Your task to perform on an android device: open a new tab in the chrome app Image 0: 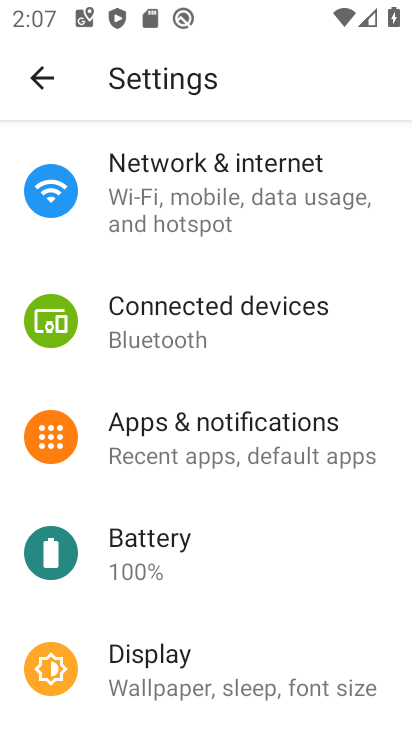
Step 0: press home button
Your task to perform on an android device: open a new tab in the chrome app Image 1: 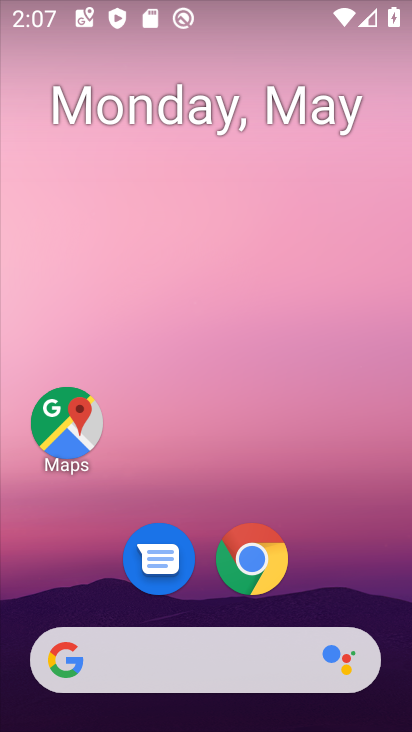
Step 1: click (225, 556)
Your task to perform on an android device: open a new tab in the chrome app Image 2: 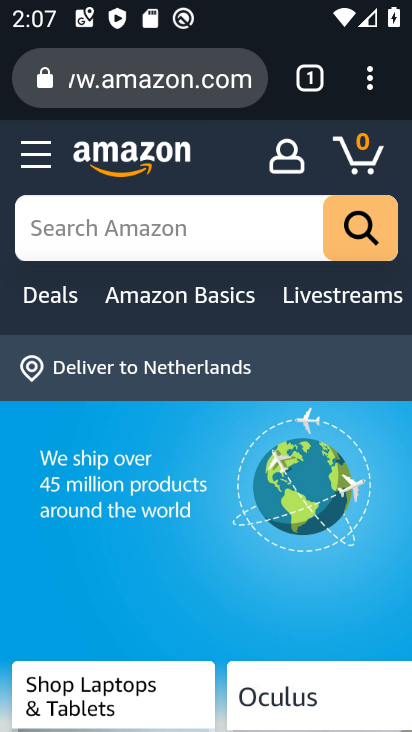
Step 2: click (369, 73)
Your task to perform on an android device: open a new tab in the chrome app Image 3: 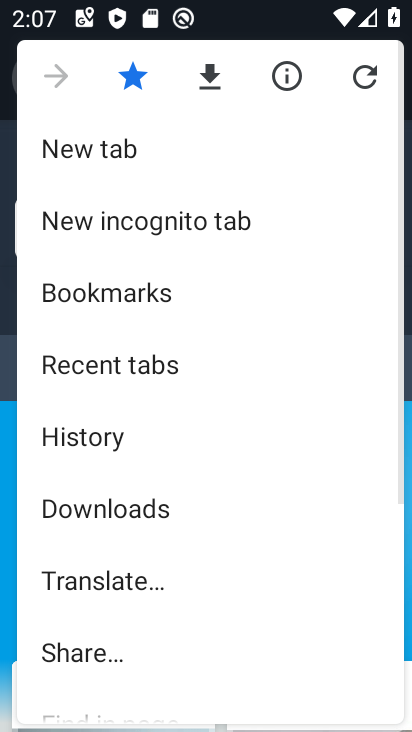
Step 3: click (364, 76)
Your task to perform on an android device: open a new tab in the chrome app Image 4: 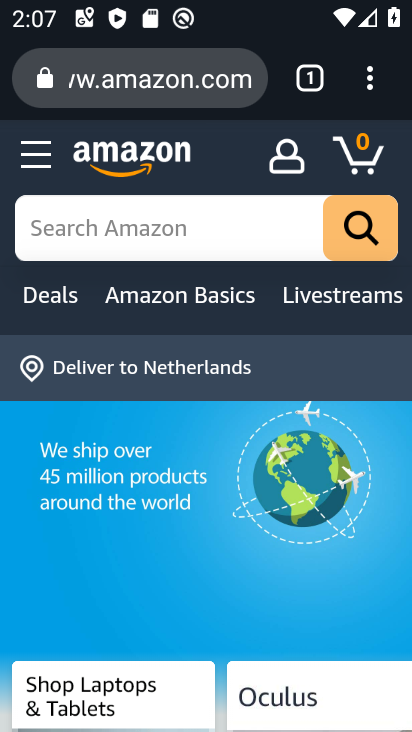
Step 4: click (381, 93)
Your task to perform on an android device: open a new tab in the chrome app Image 5: 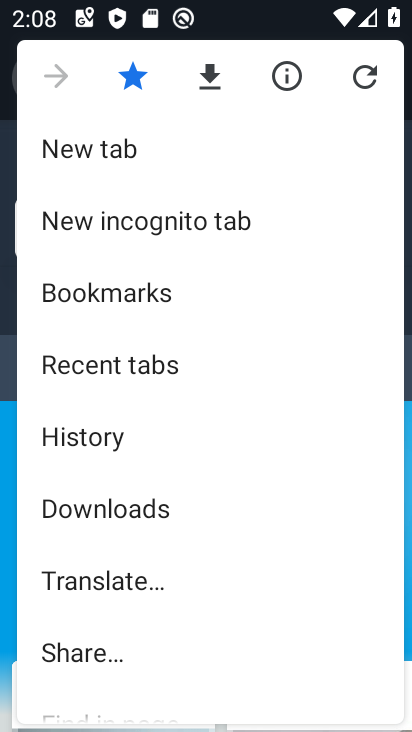
Step 5: click (102, 157)
Your task to perform on an android device: open a new tab in the chrome app Image 6: 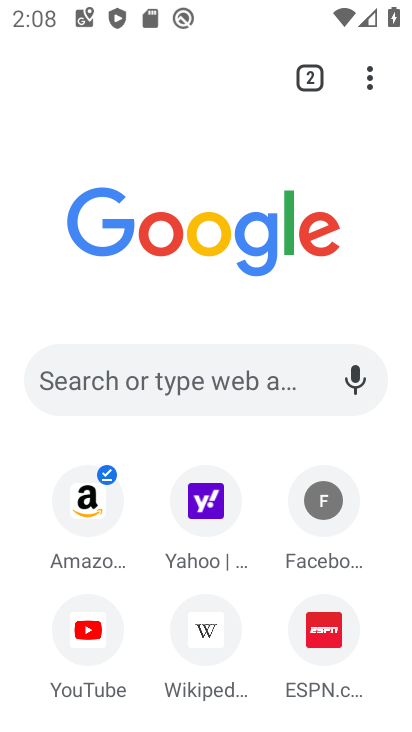
Step 6: task complete